Your task to perform on an android device: check storage Image 0: 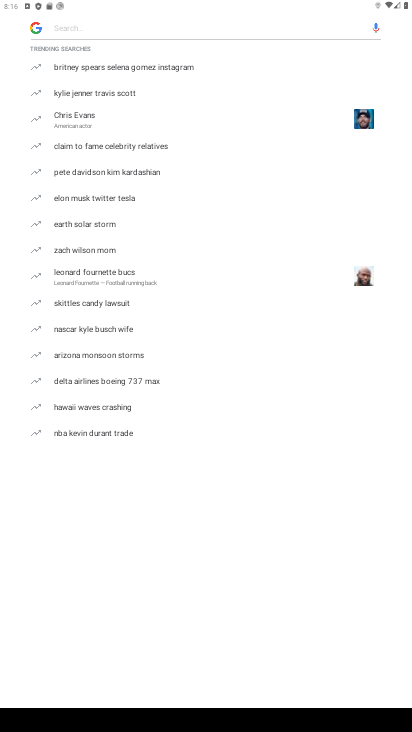
Step 0: press home button
Your task to perform on an android device: check storage Image 1: 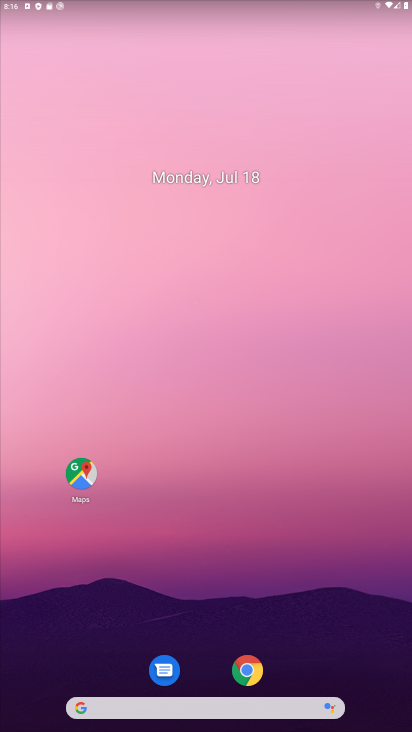
Step 1: drag from (196, 603) to (189, 209)
Your task to perform on an android device: check storage Image 2: 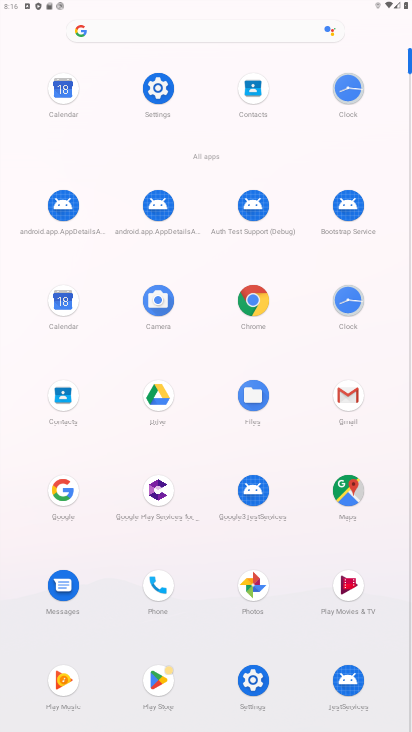
Step 2: click (154, 88)
Your task to perform on an android device: check storage Image 3: 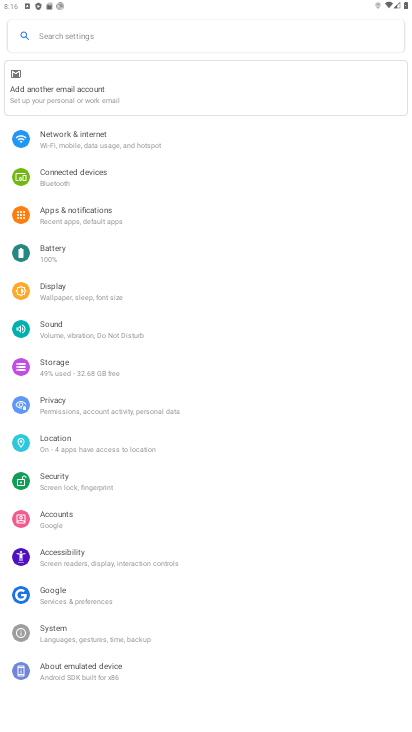
Step 3: click (58, 367)
Your task to perform on an android device: check storage Image 4: 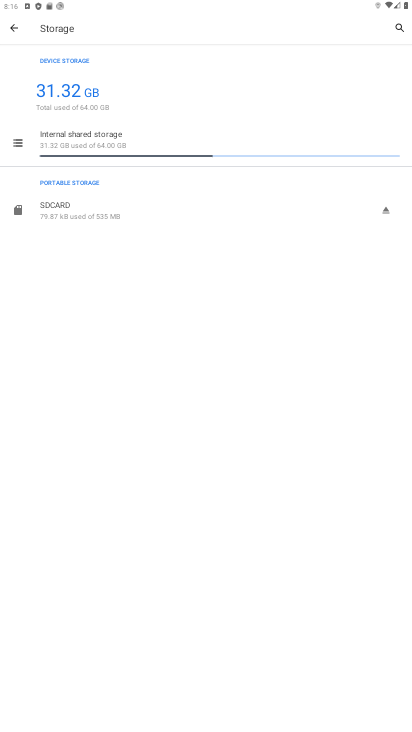
Step 4: task complete